Your task to perform on an android device: show emergency info Image 0: 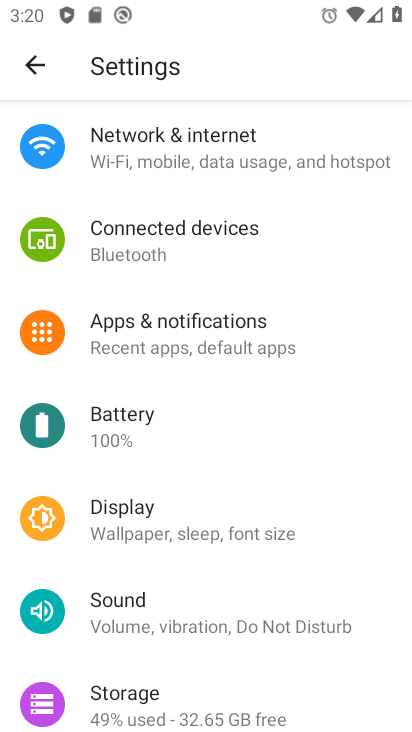
Step 0: drag from (329, 658) to (322, 202)
Your task to perform on an android device: show emergency info Image 1: 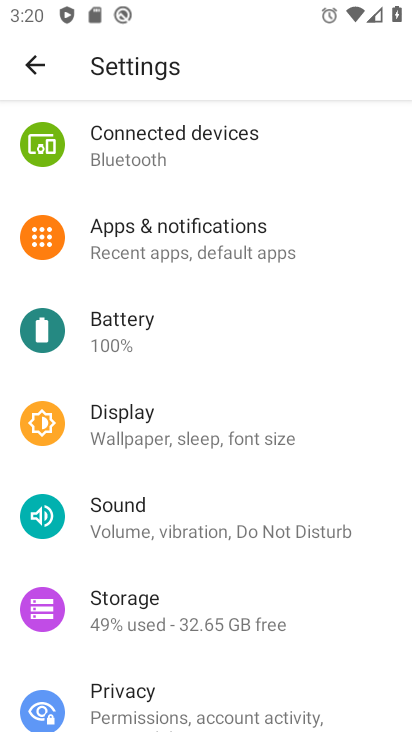
Step 1: click (361, 296)
Your task to perform on an android device: show emergency info Image 2: 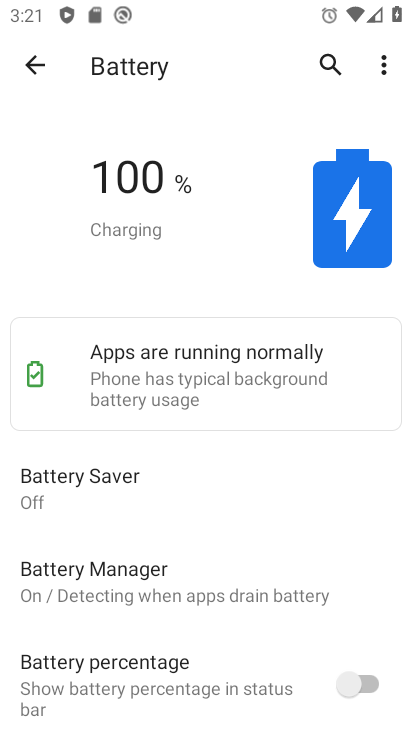
Step 2: click (40, 65)
Your task to perform on an android device: show emergency info Image 3: 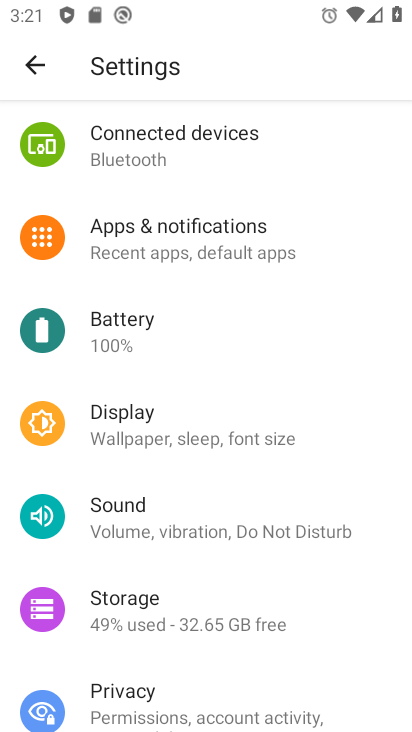
Step 3: drag from (364, 689) to (336, 287)
Your task to perform on an android device: show emergency info Image 4: 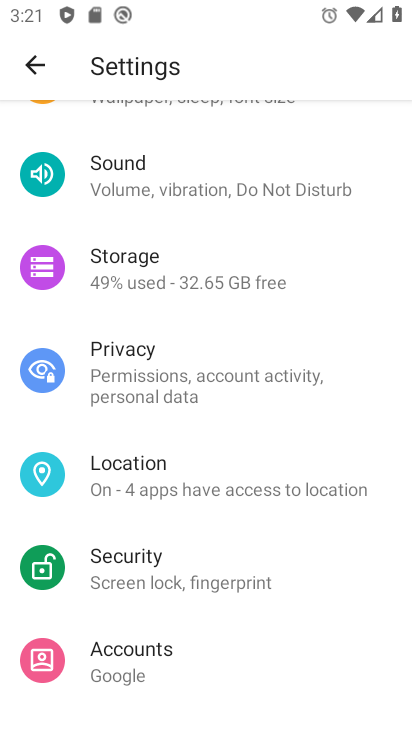
Step 4: drag from (347, 665) to (411, 346)
Your task to perform on an android device: show emergency info Image 5: 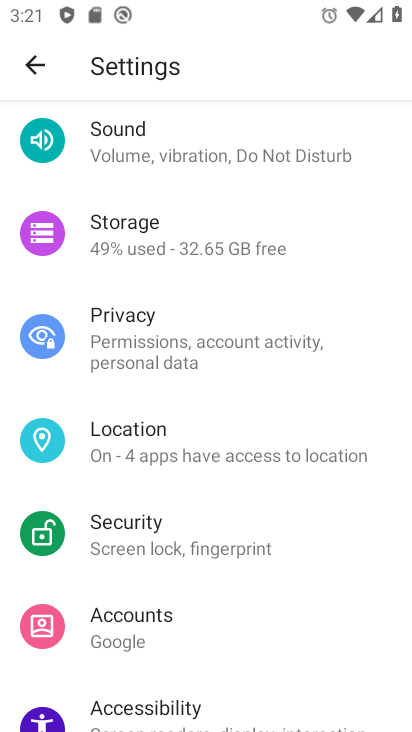
Step 5: drag from (302, 675) to (281, 442)
Your task to perform on an android device: show emergency info Image 6: 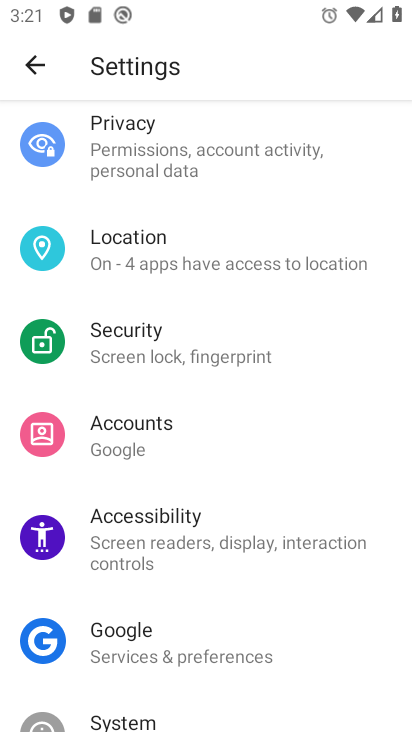
Step 6: drag from (344, 689) to (320, 384)
Your task to perform on an android device: show emergency info Image 7: 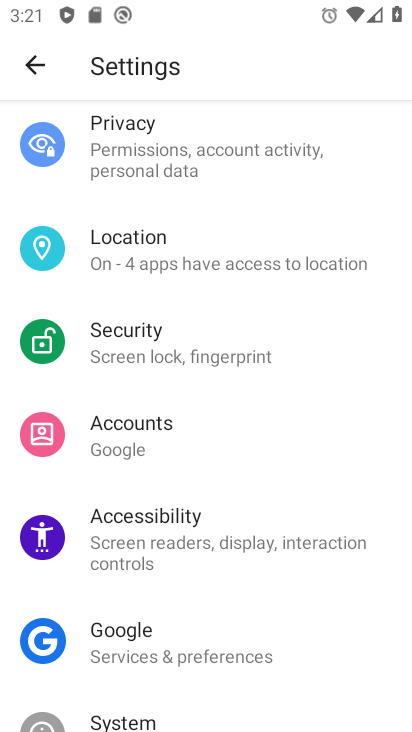
Step 7: drag from (335, 664) to (364, 372)
Your task to perform on an android device: show emergency info Image 8: 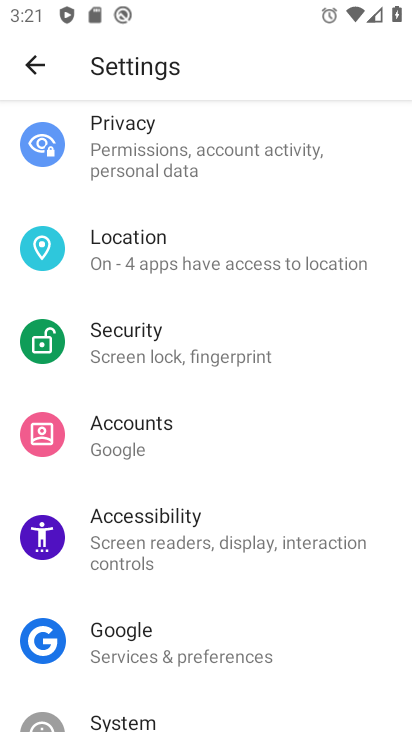
Step 8: drag from (351, 691) to (392, 375)
Your task to perform on an android device: show emergency info Image 9: 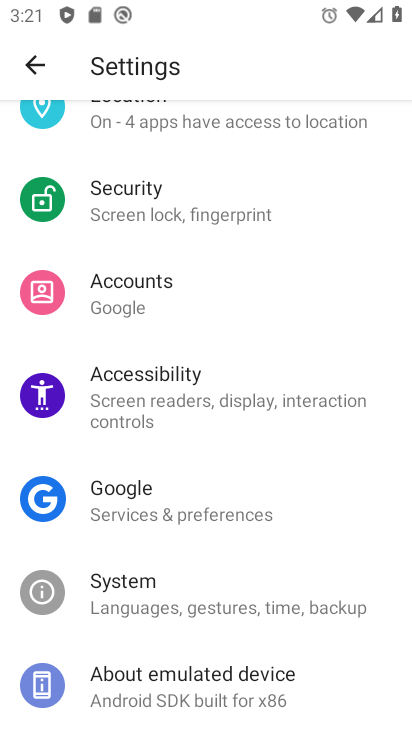
Step 9: click (125, 689)
Your task to perform on an android device: show emergency info Image 10: 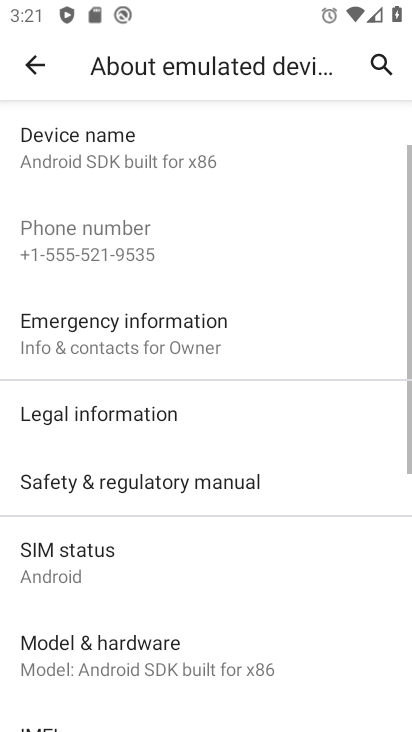
Step 10: click (127, 321)
Your task to perform on an android device: show emergency info Image 11: 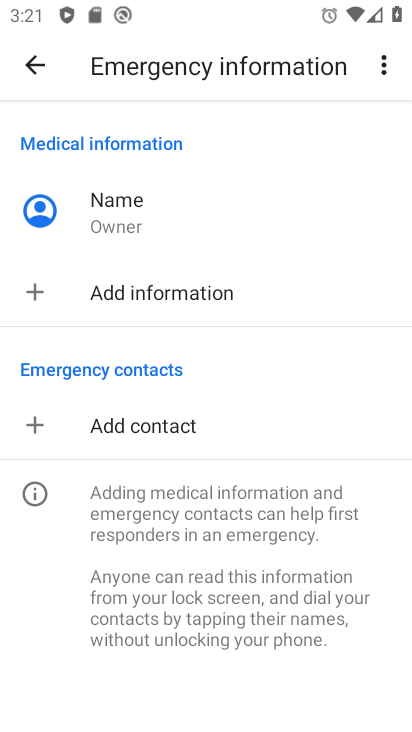
Step 11: task complete